Your task to perform on an android device: Open Google Chrome Image 0: 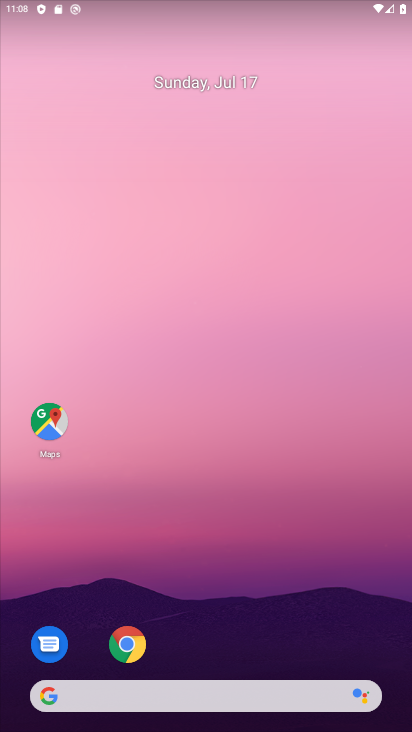
Step 0: drag from (291, 557) to (246, 59)
Your task to perform on an android device: Open Google Chrome Image 1: 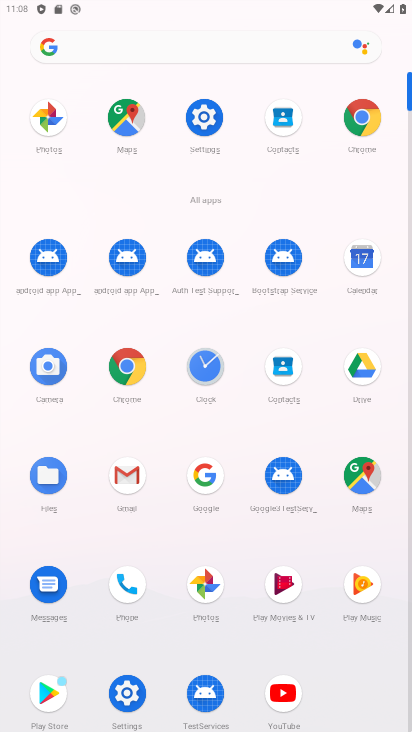
Step 1: click (362, 108)
Your task to perform on an android device: Open Google Chrome Image 2: 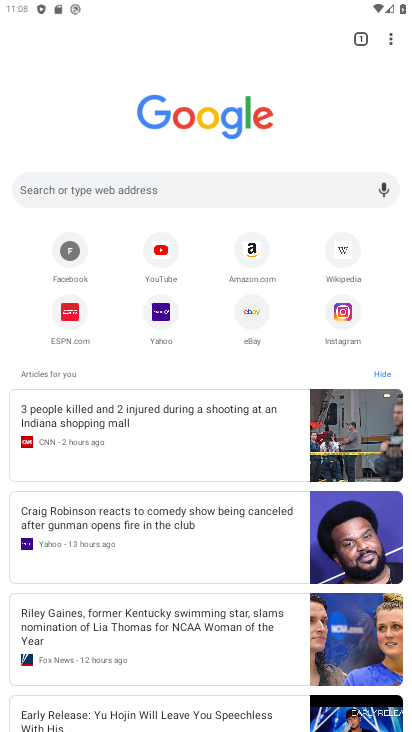
Step 2: task complete